Your task to perform on an android device: toggle show notifications on the lock screen Image 0: 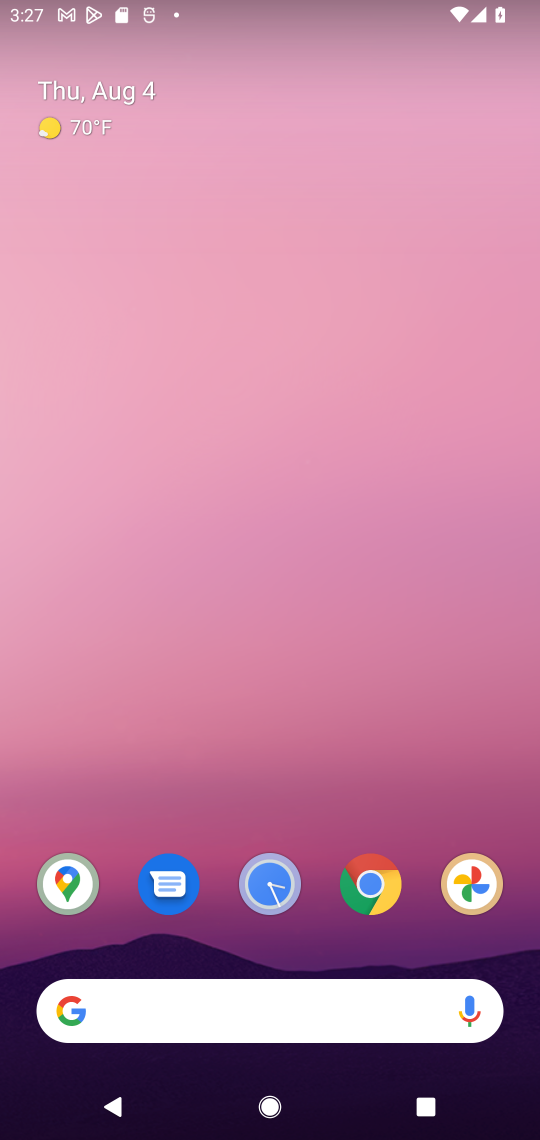
Step 0: drag from (306, 965) to (335, 45)
Your task to perform on an android device: toggle show notifications on the lock screen Image 1: 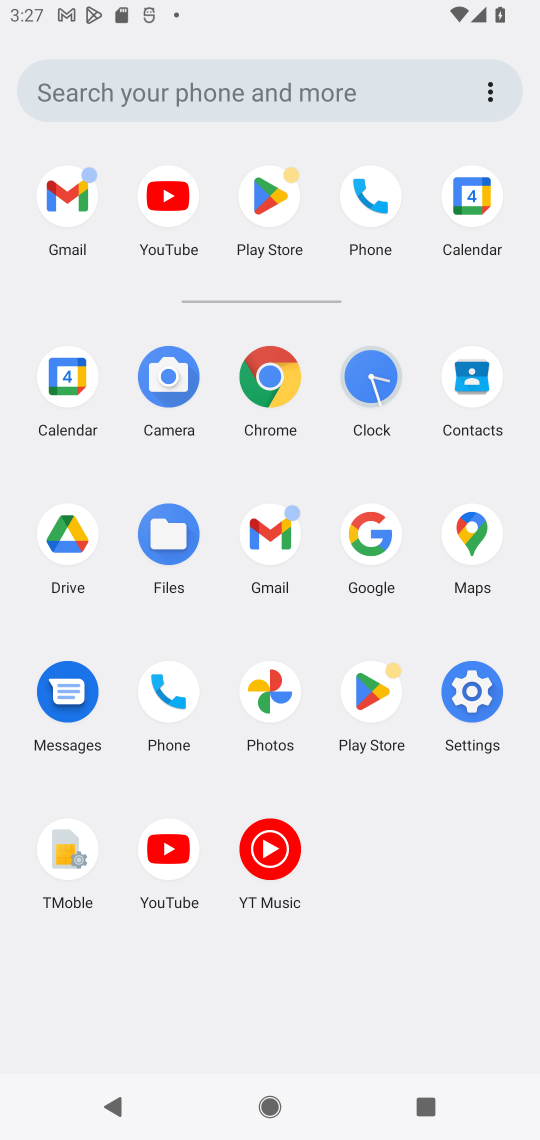
Step 1: click (480, 746)
Your task to perform on an android device: toggle show notifications on the lock screen Image 2: 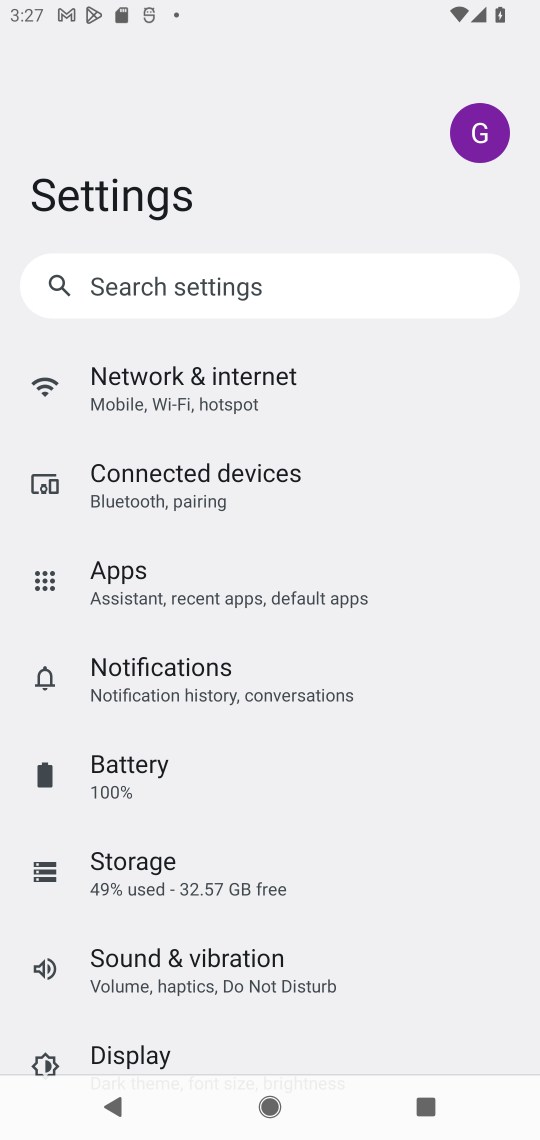
Step 2: click (237, 695)
Your task to perform on an android device: toggle show notifications on the lock screen Image 3: 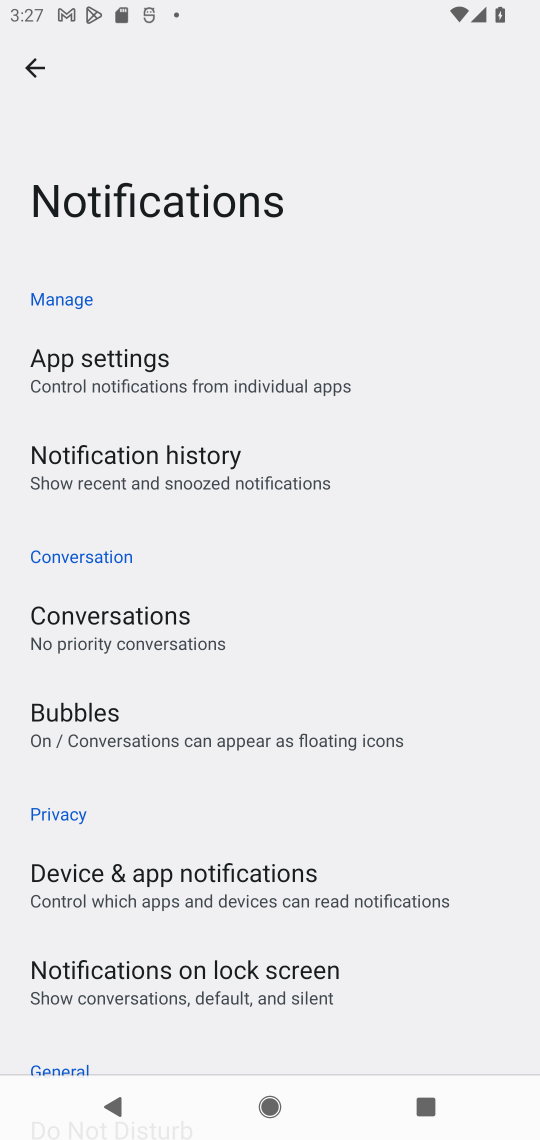
Step 3: task complete